Your task to perform on an android device: Open Wikipedia Image 0: 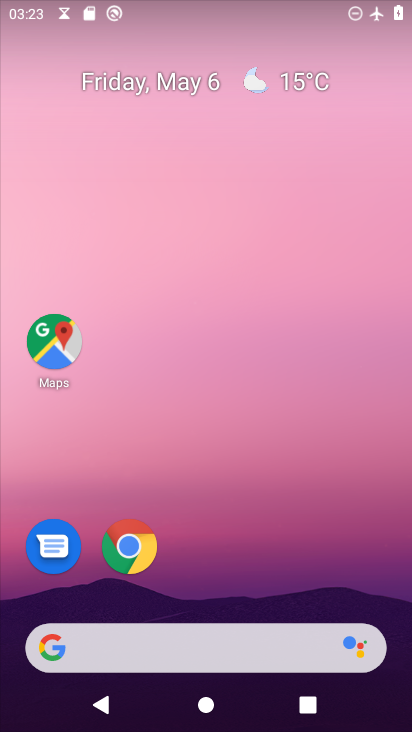
Step 0: click (134, 554)
Your task to perform on an android device: Open Wikipedia Image 1: 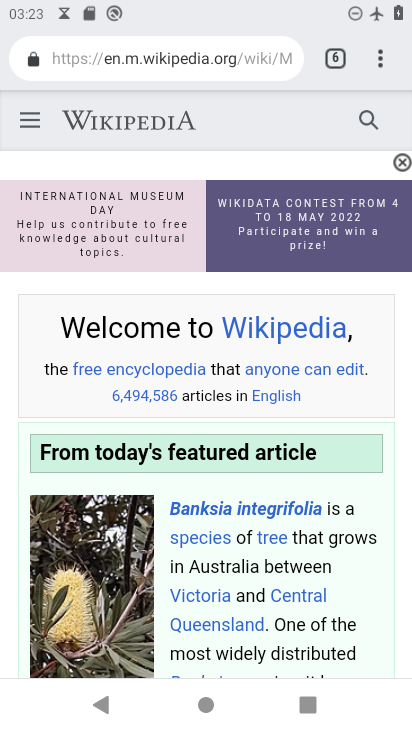
Step 1: task complete